Your task to perform on an android device: Go to wifi settings Image 0: 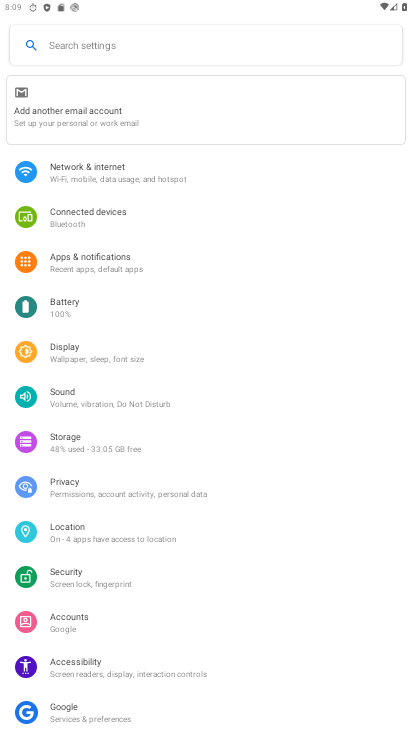
Step 0: click (164, 178)
Your task to perform on an android device: Go to wifi settings Image 1: 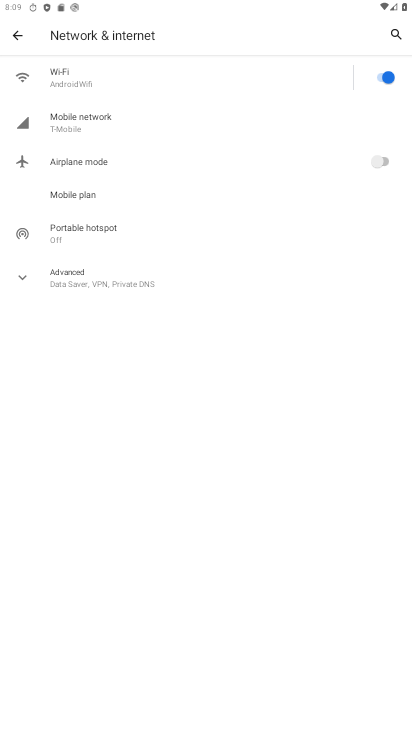
Step 1: click (135, 84)
Your task to perform on an android device: Go to wifi settings Image 2: 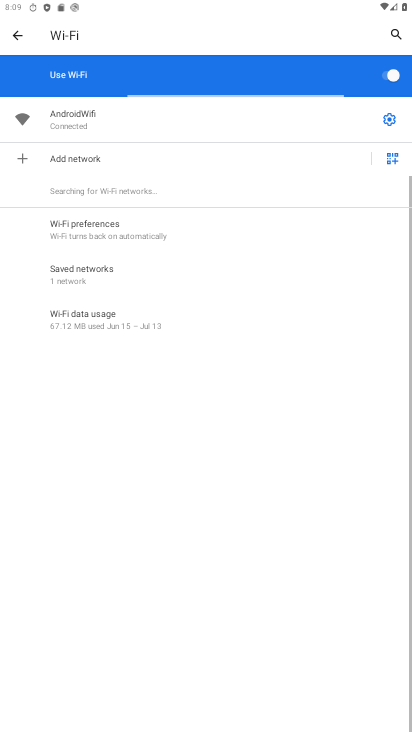
Step 2: task complete